Your task to perform on an android device: turn vacation reply on in the gmail app Image 0: 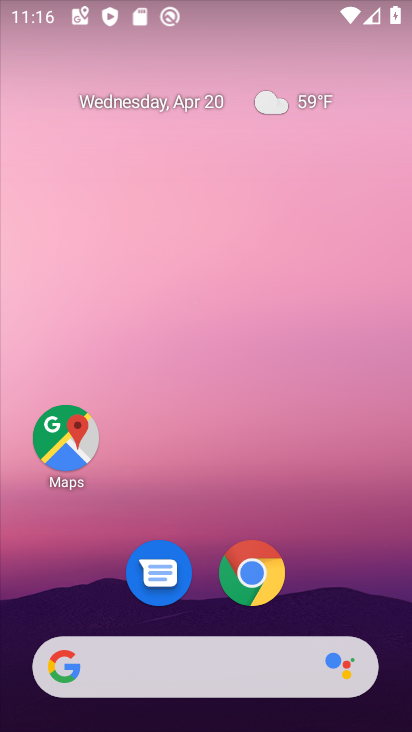
Step 0: drag from (376, 631) to (400, 13)
Your task to perform on an android device: turn vacation reply on in the gmail app Image 1: 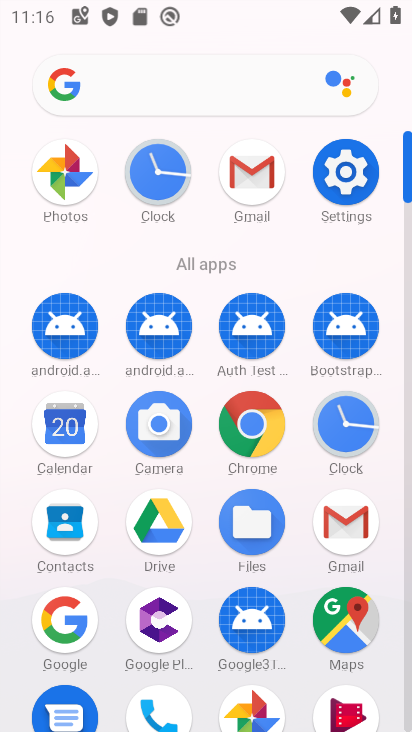
Step 1: click (248, 178)
Your task to perform on an android device: turn vacation reply on in the gmail app Image 2: 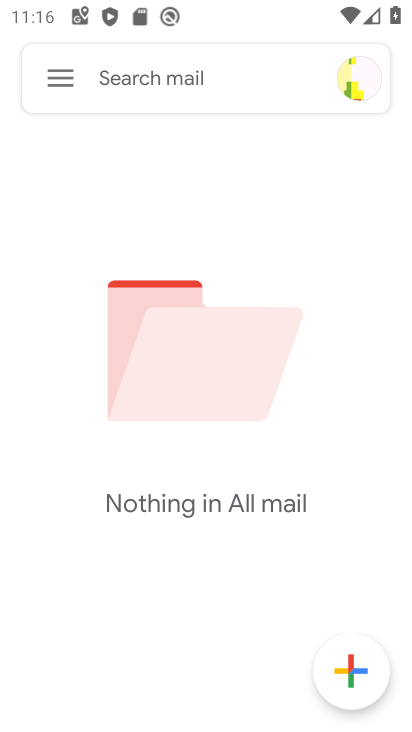
Step 2: click (59, 79)
Your task to perform on an android device: turn vacation reply on in the gmail app Image 3: 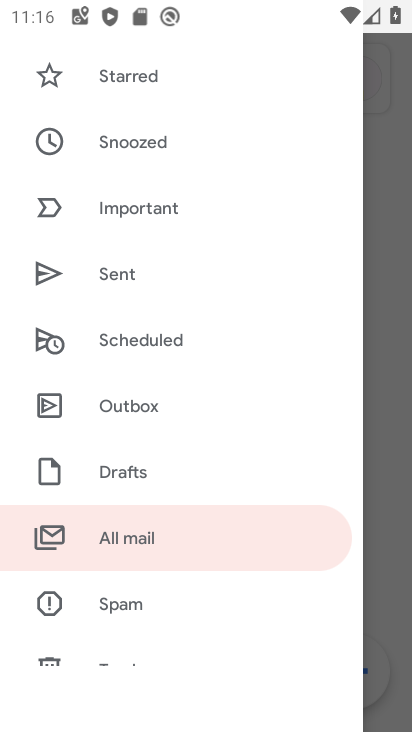
Step 3: drag from (232, 584) to (239, 167)
Your task to perform on an android device: turn vacation reply on in the gmail app Image 4: 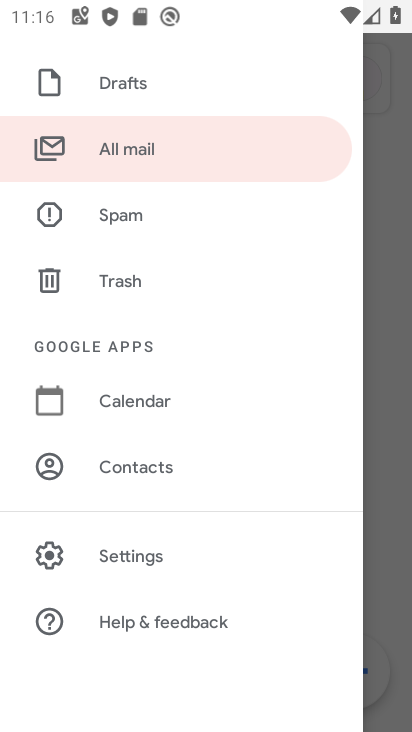
Step 4: click (131, 559)
Your task to perform on an android device: turn vacation reply on in the gmail app Image 5: 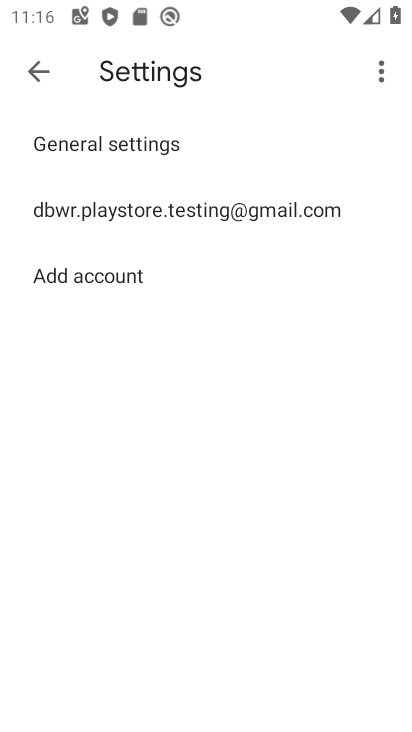
Step 5: click (120, 218)
Your task to perform on an android device: turn vacation reply on in the gmail app Image 6: 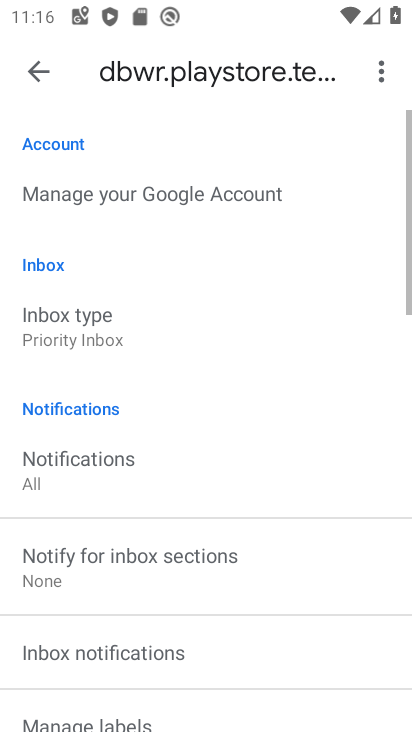
Step 6: drag from (230, 533) to (224, 180)
Your task to perform on an android device: turn vacation reply on in the gmail app Image 7: 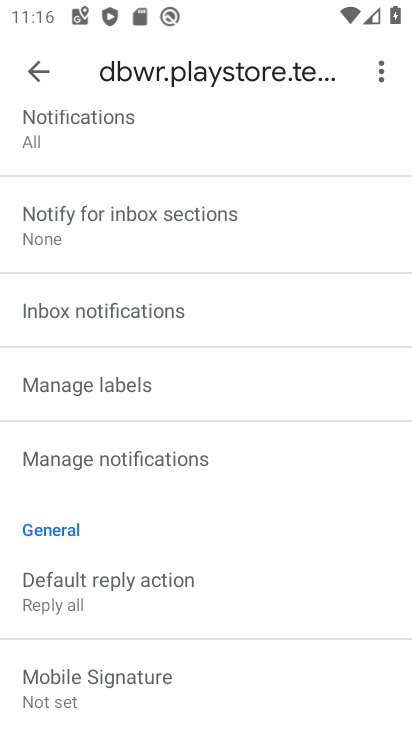
Step 7: drag from (208, 542) to (190, 210)
Your task to perform on an android device: turn vacation reply on in the gmail app Image 8: 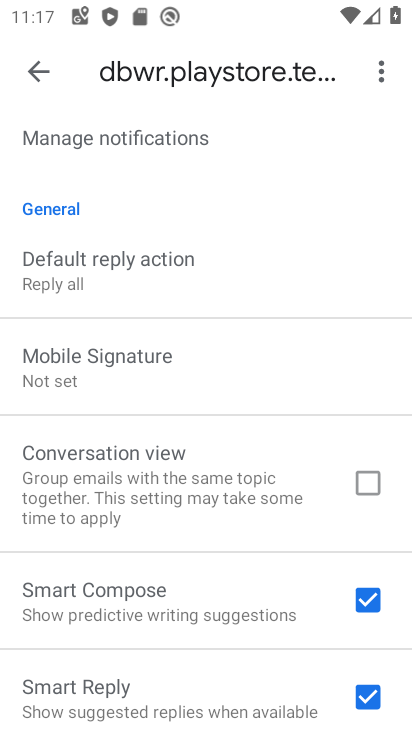
Step 8: drag from (144, 586) to (137, 240)
Your task to perform on an android device: turn vacation reply on in the gmail app Image 9: 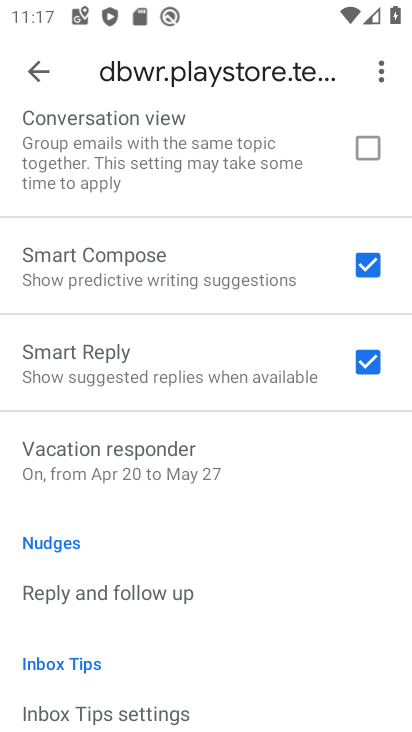
Step 9: click (95, 460)
Your task to perform on an android device: turn vacation reply on in the gmail app Image 10: 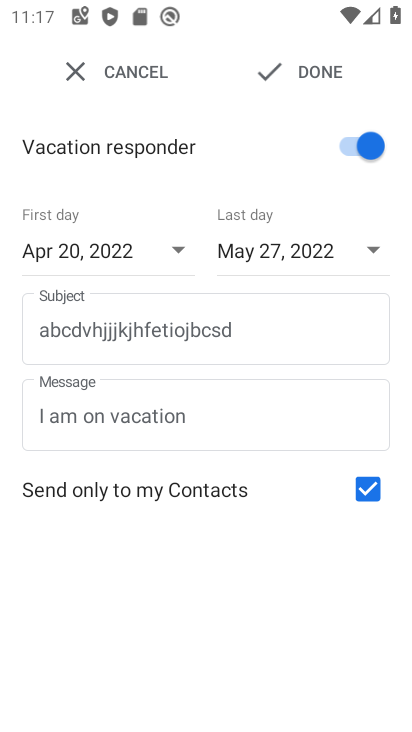
Step 10: click (315, 75)
Your task to perform on an android device: turn vacation reply on in the gmail app Image 11: 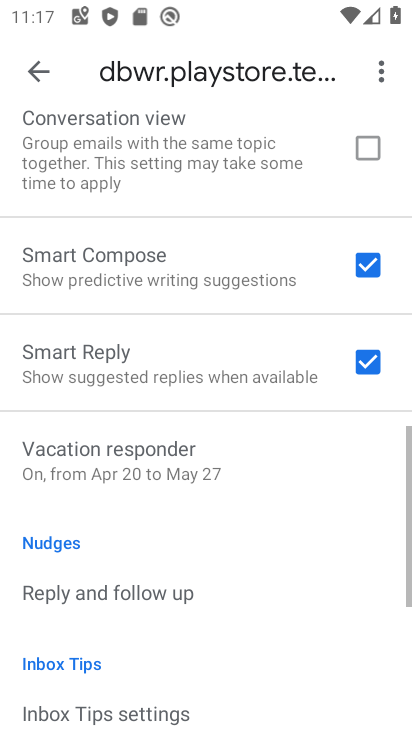
Step 11: task complete